Your task to perform on an android device: Search for seafood restaurants on Google Maps Image 0: 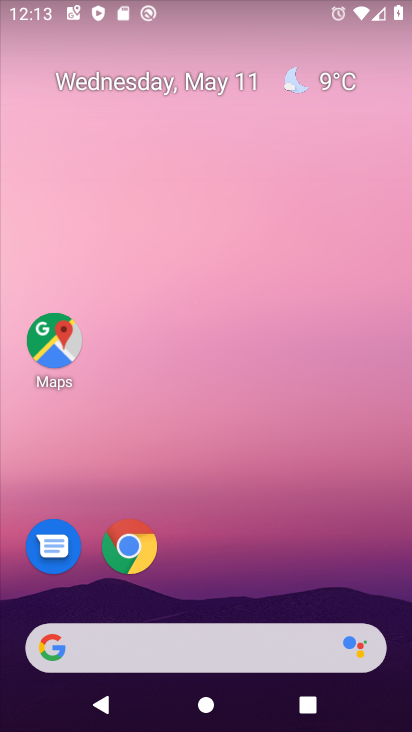
Step 0: drag from (240, 611) to (240, 110)
Your task to perform on an android device: Search for seafood restaurants on Google Maps Image 1: 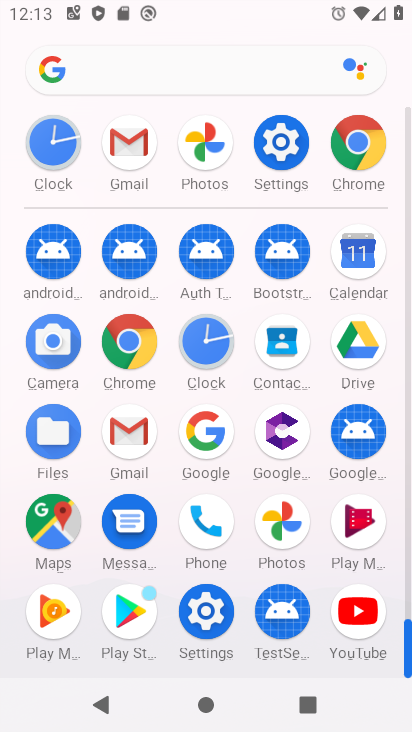
Step 1: click (54, 525)
Your task to perform on an android device: Search for seafood restaurants on Google Maps Image 2: 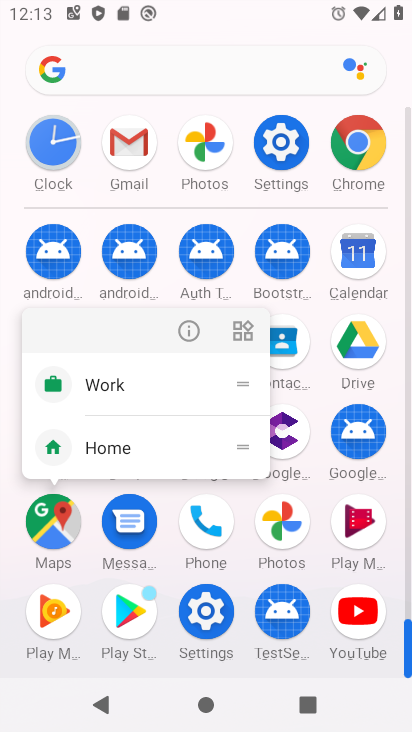
Step 2: click (189, 331)
Your task to perform on an android device: Search for seafood restaurants on Google Maps Image 3: 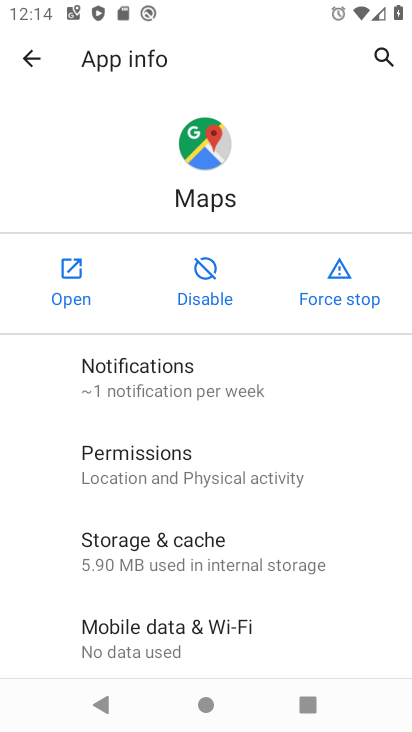
Step 3: click (69, 277)
Your task to perform on an android device: Search for seafood restaurants on Google Maps Image 4: 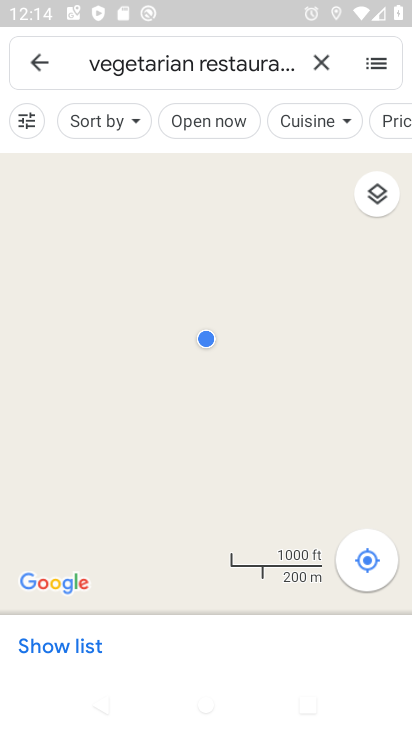
Step 4: click (331, 58)
Your task to perform on an android device: Search for seafood restaurants on Google Maps Image 5: 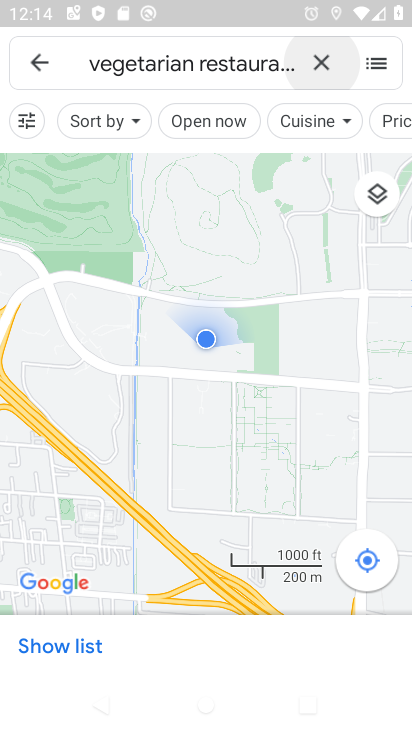
Step 5: click (33, 67)
Your task to perform on an android device: Search for seafood restaurants on Google Maps Image 6: 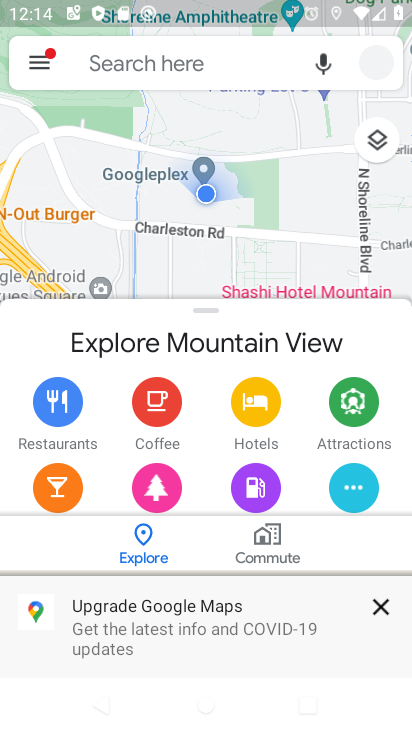
Step 6: click (164, 68)
Your task to perform on an android device: Search for seafood restaurants on Google Maps Image 7: 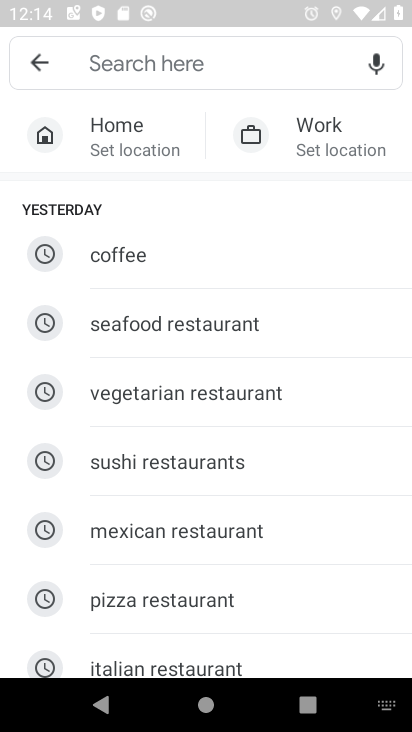
Step 7: click (159, 332)
Your task to perform on an android device: Search for seafood restaurants on Google Maps Image 8: 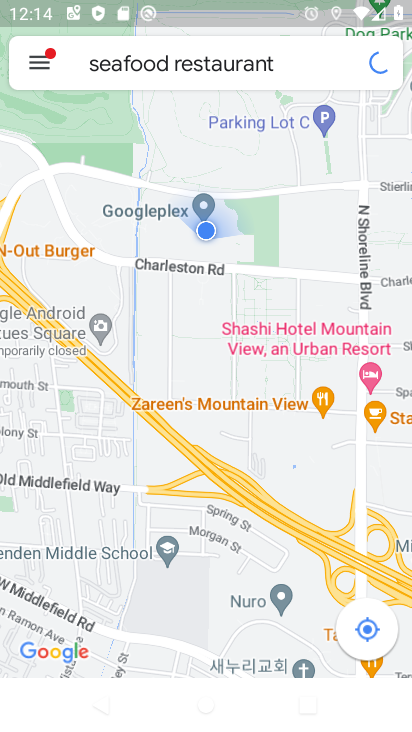
Step 8: task complete